Your task to perform on an android device: turn on location history Image 0: 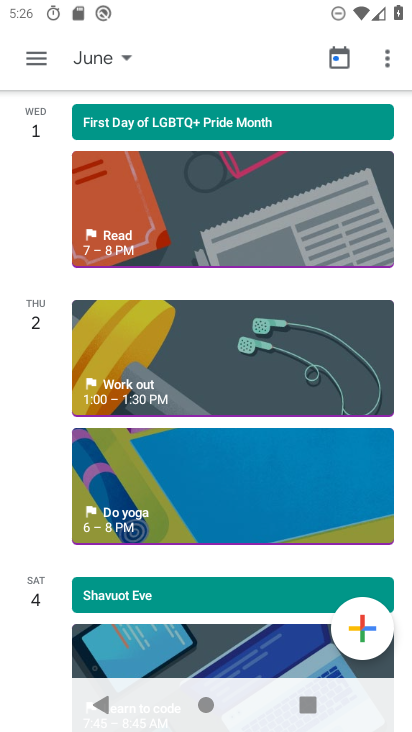
Step 0: press home button
Your task to perform on an android device: turn on location history Image 1: 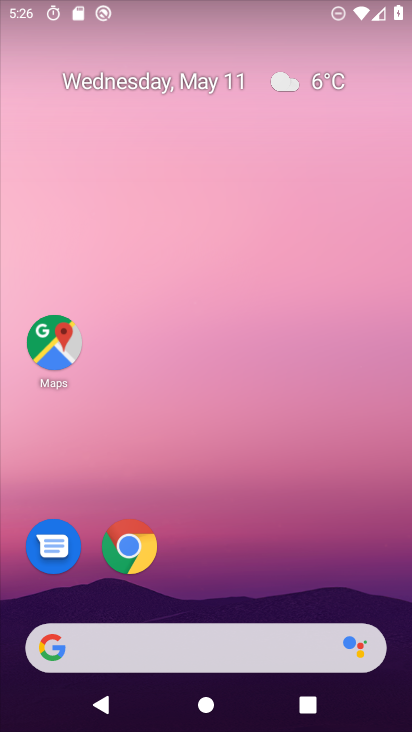
Step 1: drag from (187, 617) to (170, 175)
Your task to perform on an android device: turn on location history Image 2: 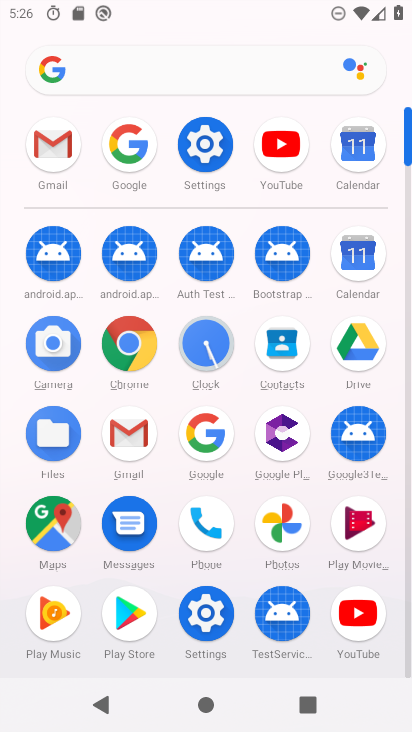
Step 2: click (196, 150)
Your task to perform on an android device: turn on location history Image 3: 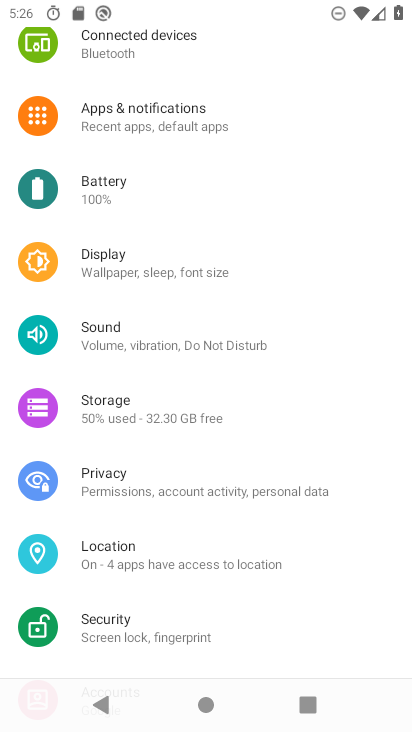
Step 3: click (131, 557)
Your task to perform on an android device: turn on location history Image 4: 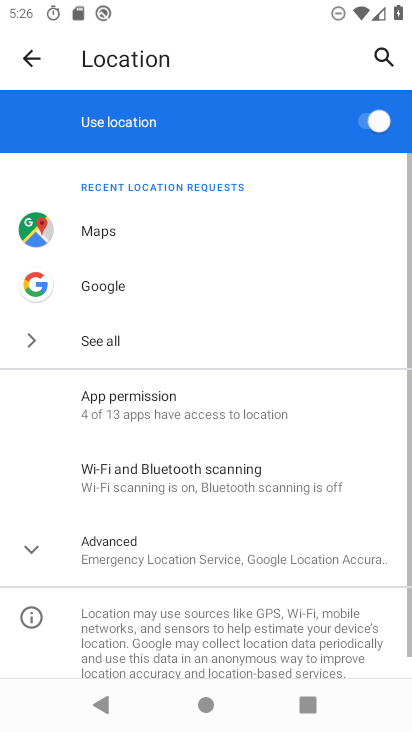
Step 4: click (159, 558)
Your task to perform on an android device: turn on location history Image 5: 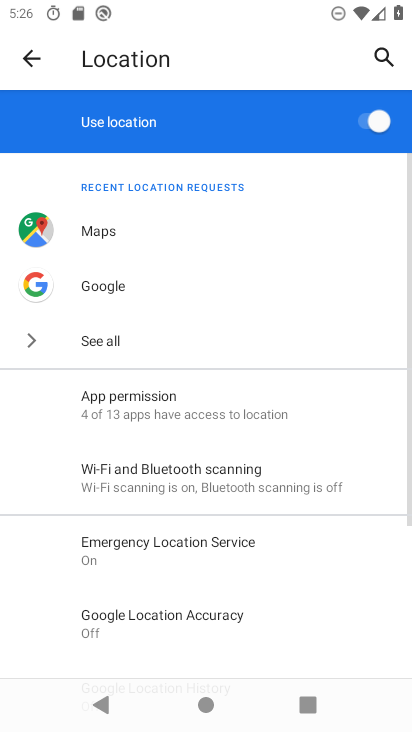
Step 5: drag from (173, 658) to (179, 400)
Your task to perform on an android device: turn on location history Image 6: 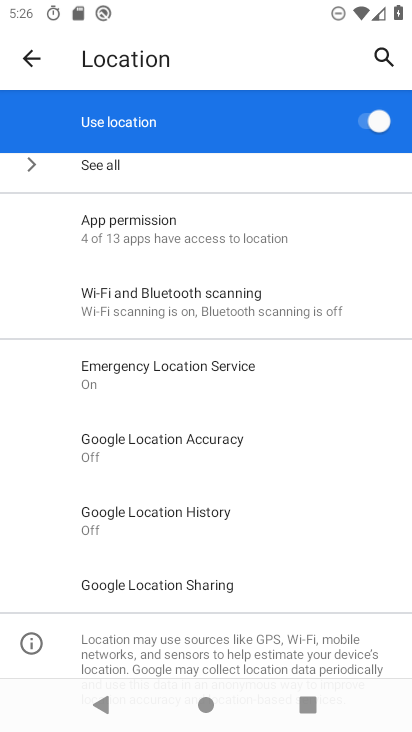
Step 6: click (170, 515)
Your task to perform on an android device: turn on location history Image 7: 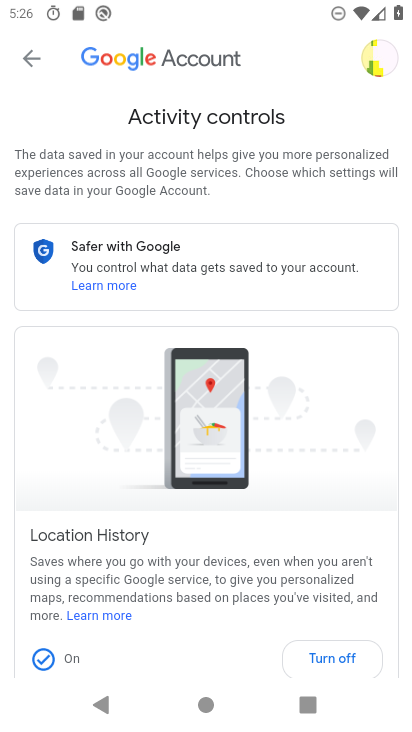
Step 7: click (312, 663)
Your task to perform on an android device: turn on location history Image 8: 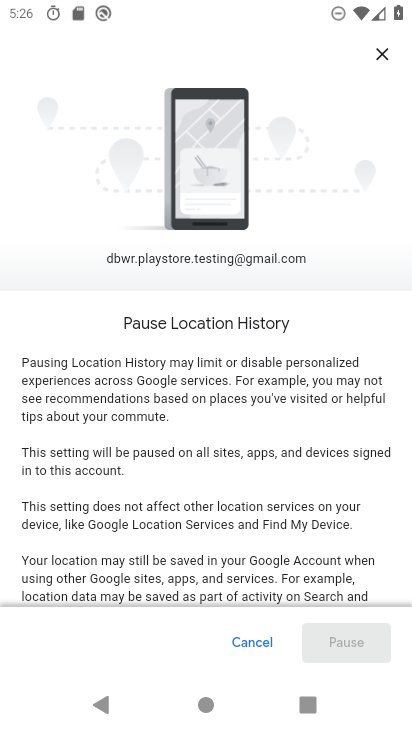
Step 8: drag from (321, 567) to (307, 199)
Your task to perform on an android device: turn on location history Image 9: 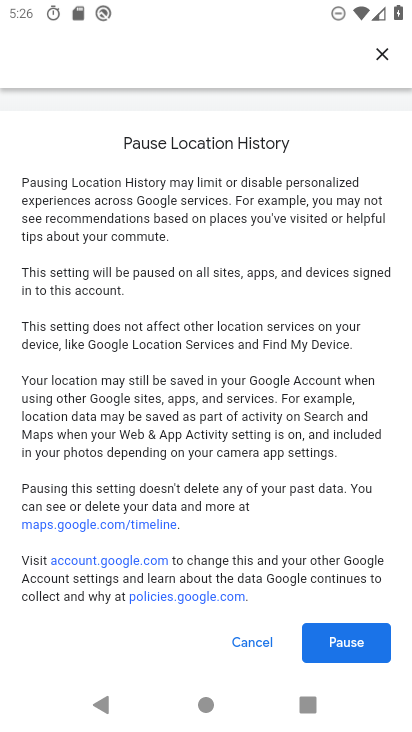
Step 9: click (332, 648)
Your task to perform on an android device: turn on location history Image 10: 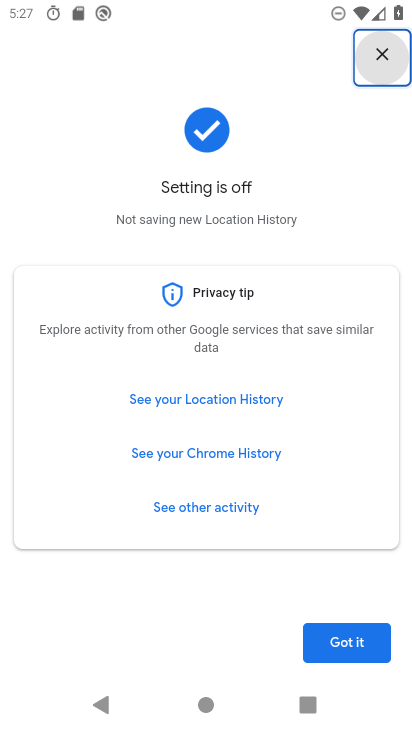
Step 10: click (362, 642)
Your task to perform on an android device: turn on location history Image 11: 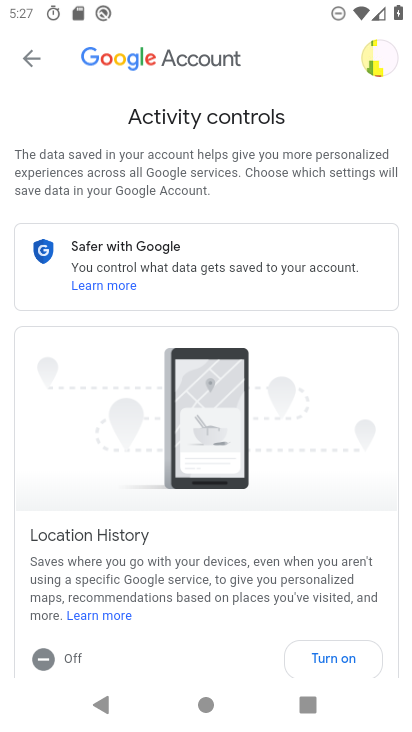
Step 11: click (336, 654)
Your task to perform on an android device: turn on location history Image 12: 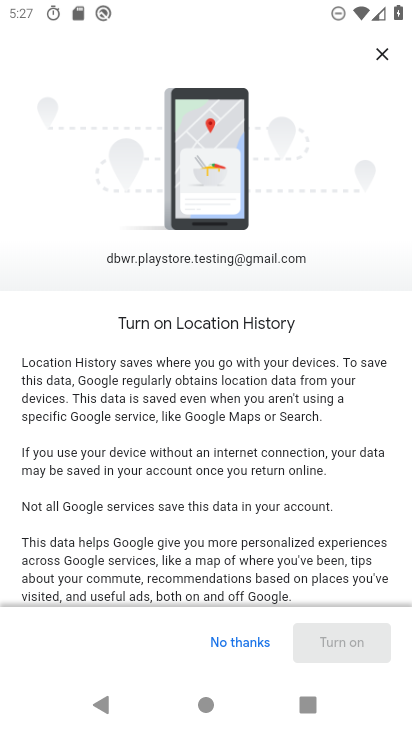
Step 12: drag from (346, 592) to (346, 286)
Your task to perform on an android device: turn on location history Image 13: 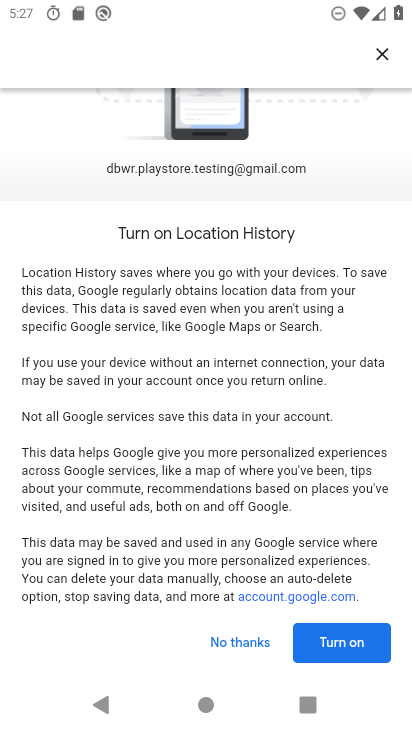
Step 13: click (311, 646)
Your task to perform on an android device: turn on location history Image 14: 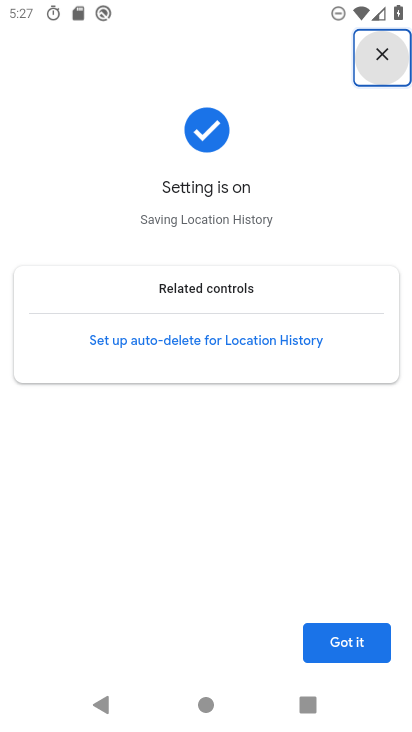
Step 14: click (345, 643)
Your task to perform on an android device: turn on location history Image 15: 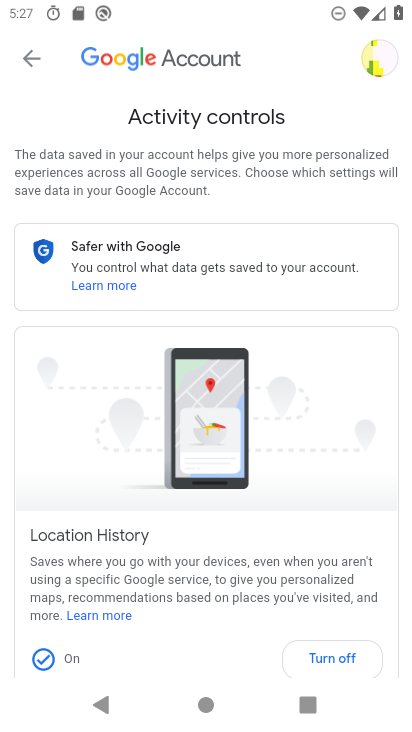
Step 15: task complete